Your task to perform on an android device: Go to notification settings Image 0: 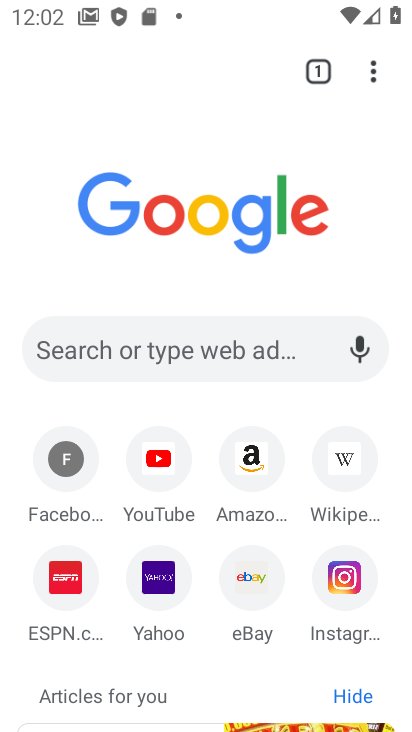
Step 0: press home button
Your task to perform on an android device: Go to notification settings Image 1: 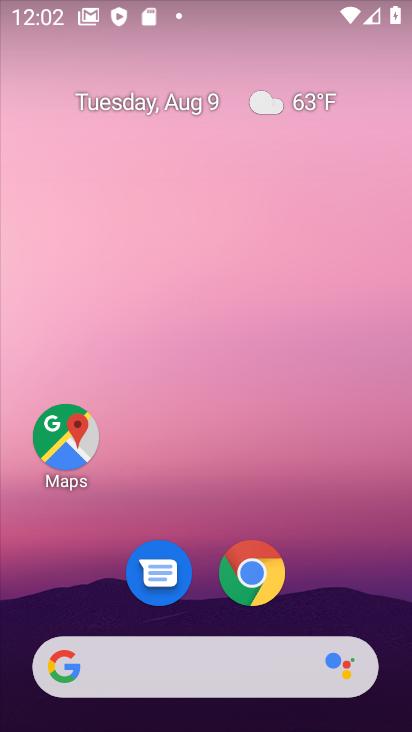
Step 1: drag from (172, 649) to (114, 270)
Your task to perform on an android device: Go to notification settings Image 2: 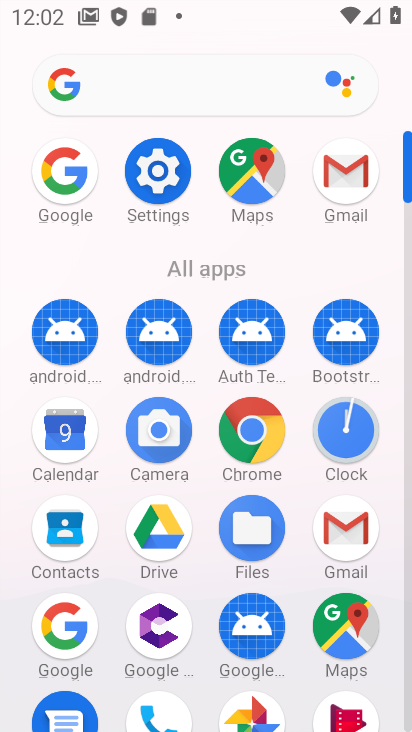
Step 2: click (135, 171)
Your task to perform on an android device: Go to notification settings Image 3: 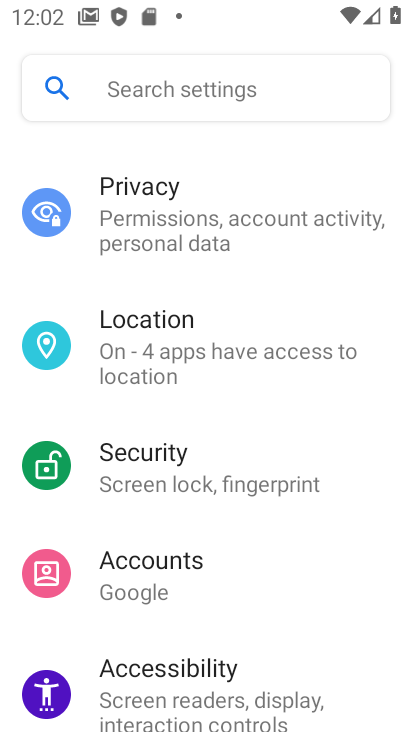
Step 3: drag from (158, 695) to (124, 288)
Your task to perform on an android device: Go to notification settings Image 4: 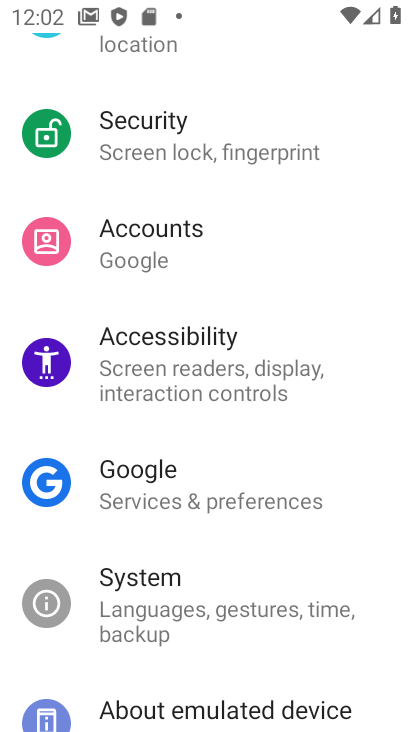
Step 4: drag from (117, 91) to (227, 522)
Your task to perform on an android device: Go to notification settings Image 5: 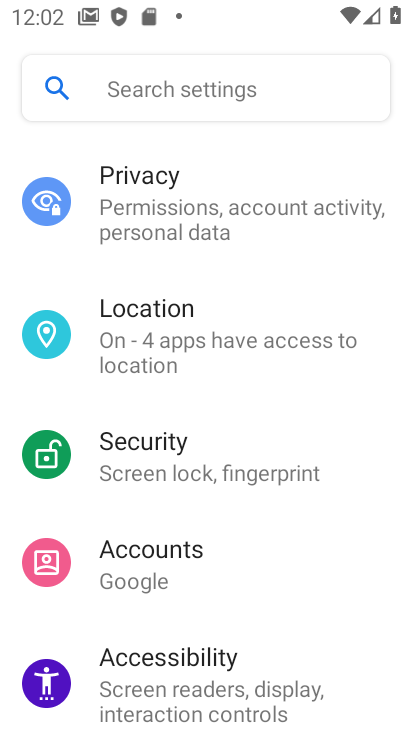
Step 5: drag from (186, 137) to (267, 522)
Your task to perform on an android device: Go to notification settings Image 6: 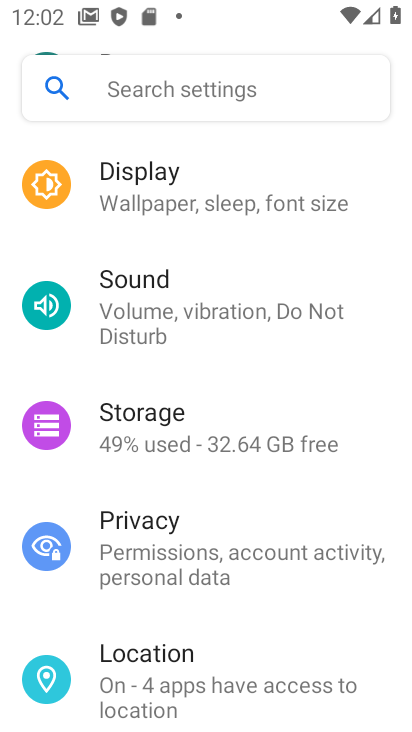
Step 6: drag from (166, 149) to (272, 605)
Your task to perform on an android device: Go to notification settings Image 7: 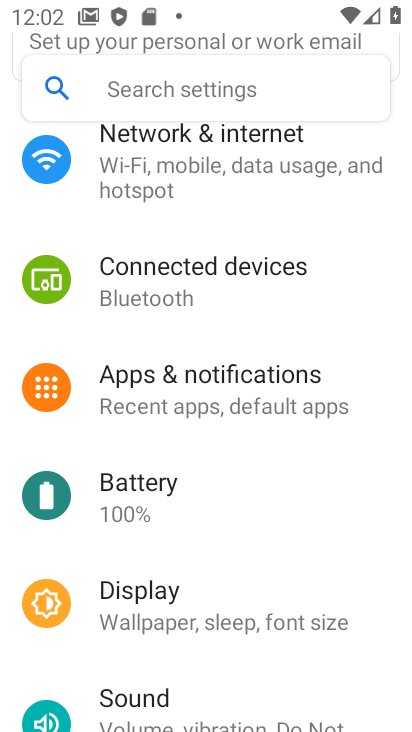
Step 7: click (193, 378)
Your task to perform on an android device: Go to notification settings Image 8: 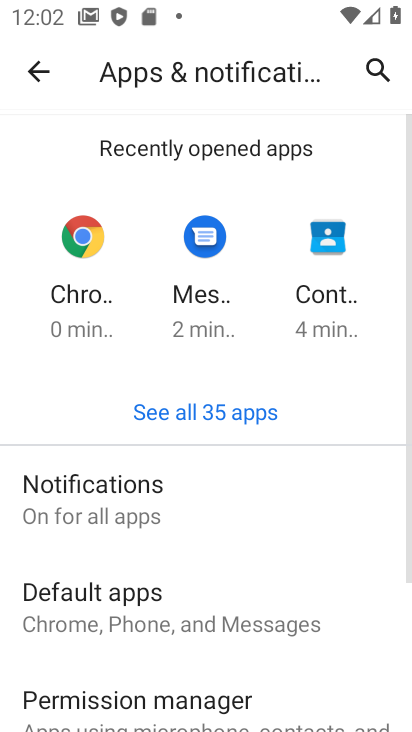
Step 8: drag from (183, 682) to (150, 268)
Your task to perform on an android device: Go to notification settings Image 9: 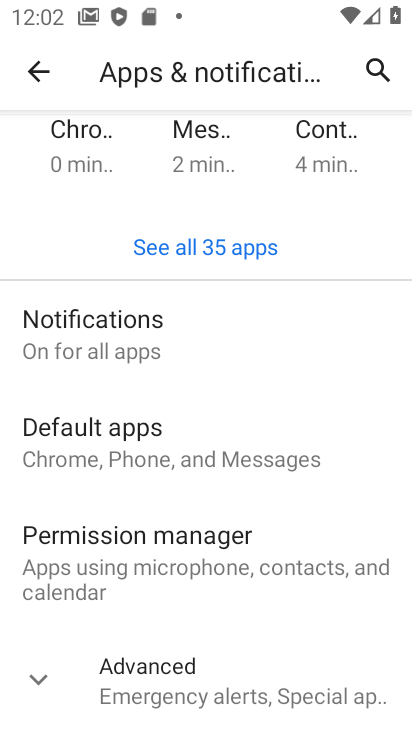
Step 9: click (159, 669)
Your task to perform on an android device: Go to notification settings Image 10: 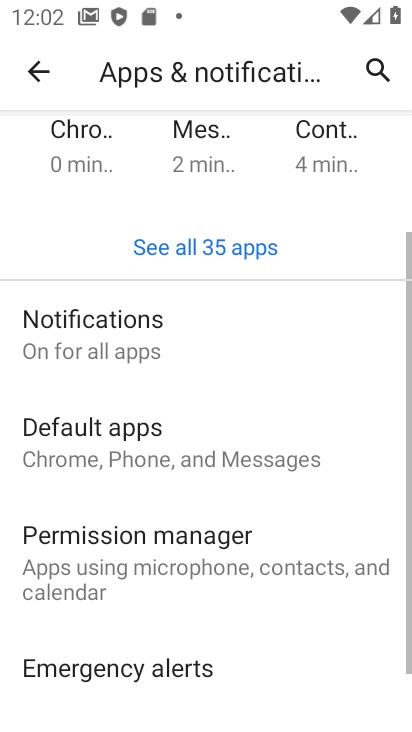
Step 10: task complete